Your task to perform on an android device: Open Wikipedia Image 0: 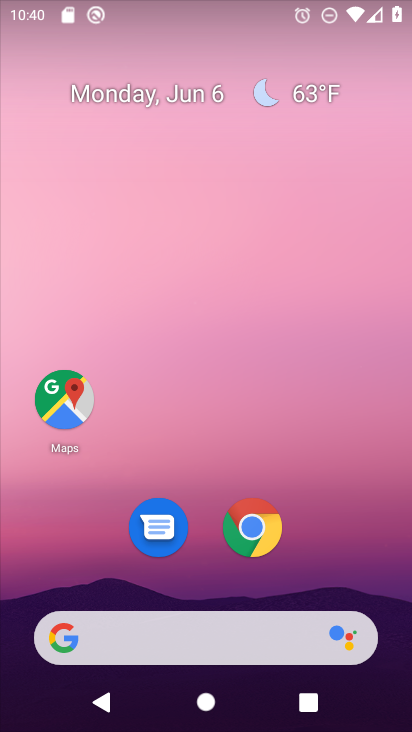
Step 0: drag from (318, 543) to (318, 144)
Your task to perform on an android device: Open Wikipedia Image 1: 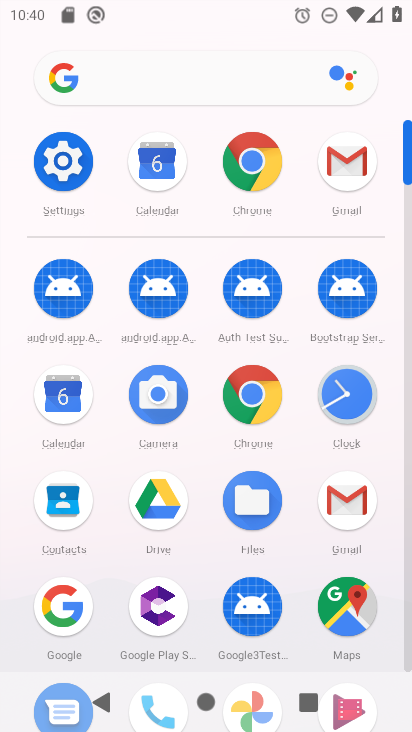
Step 1: click (264, 402)
Your task to perform on an android device: Open Wikipedia Image 2: 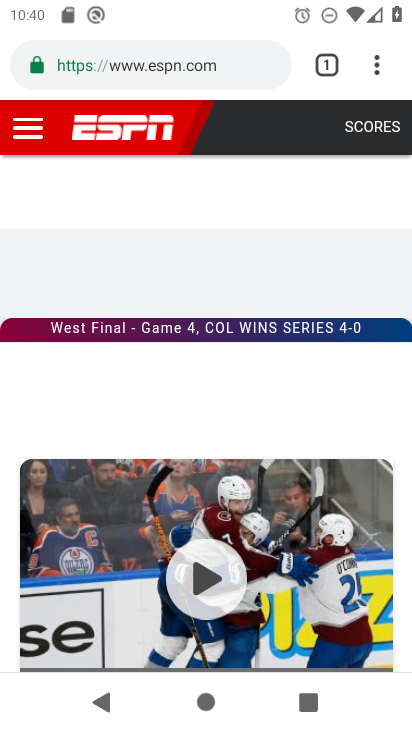
Step 2: click (221, 77)
Your task to perform on an android device: Open Wikipedia Image 3: 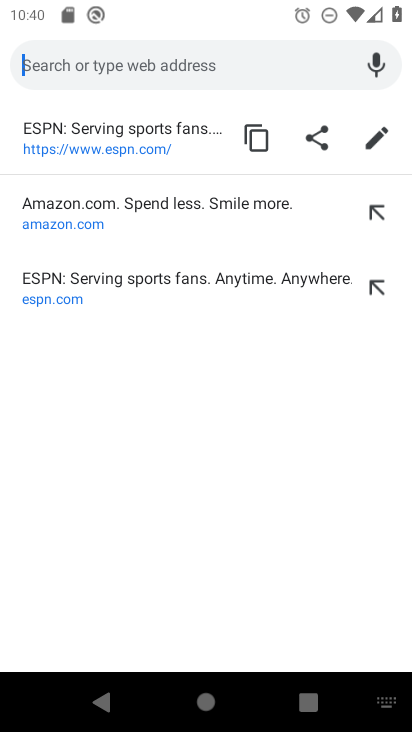
Step 3: type "wikipedia"
Your task to perform on an android device: Open Wikipedia Image 4: 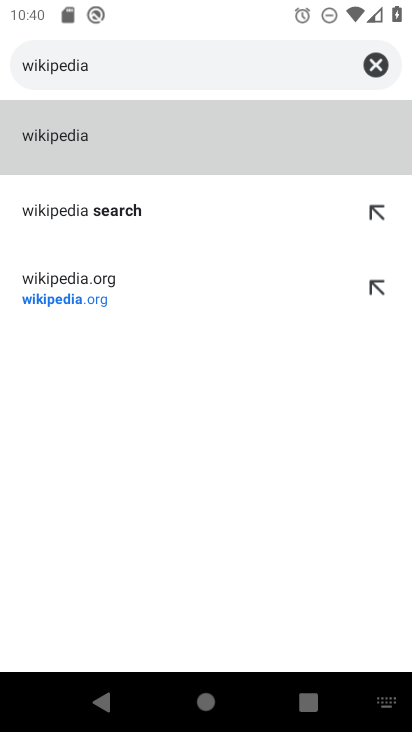
Step 4: click (220, 149)
Your task to perform on an android device: Open Wikipedia Image 5: 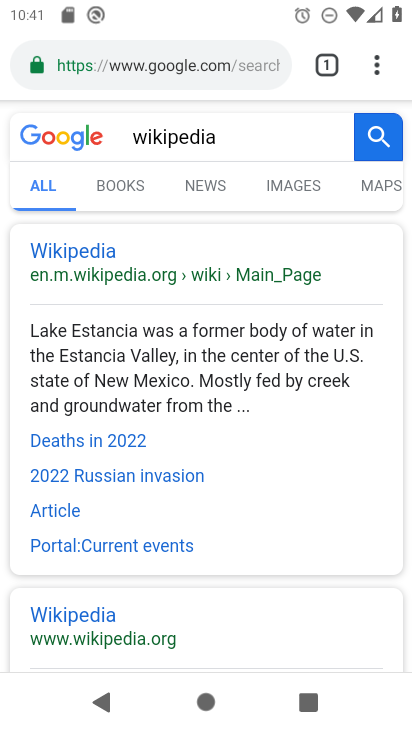
Step 5: task complete